Your task to perform on an android device: Open Yahoo.com Image 0: 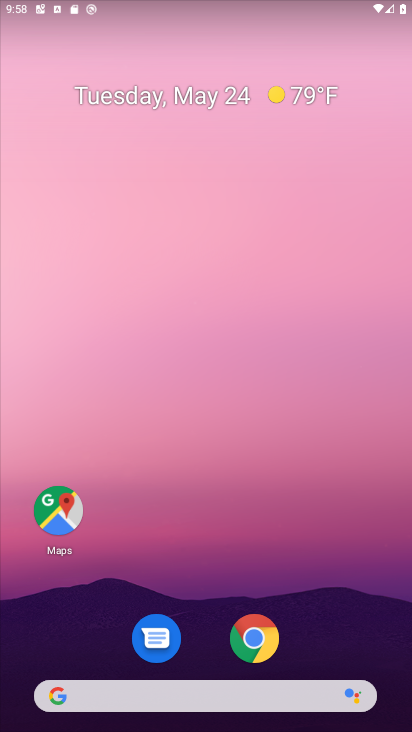
Step 0: click (116, 692)
Your task to perform on an android device: Open Yahoo.com Image 1: 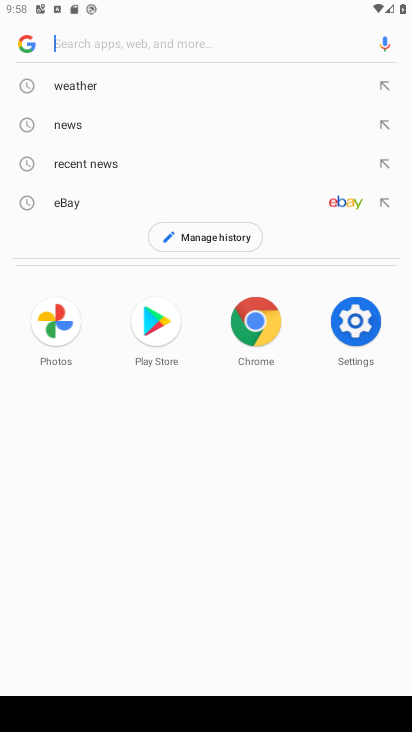
Step 1: type "yahoo.com"
Your task to perform on an android device: Open Yahoo.com Image 2: 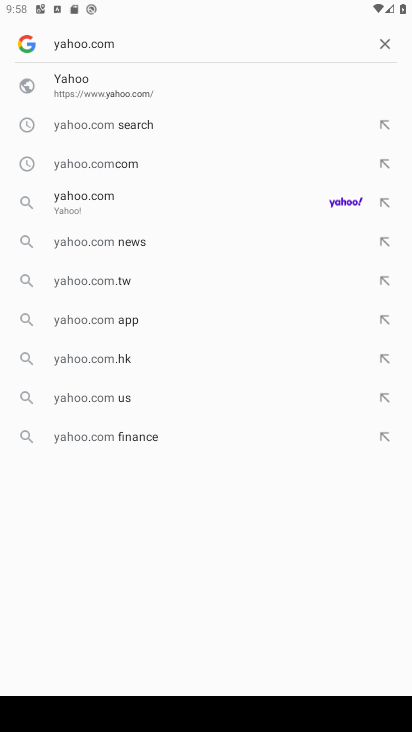
Step 2: click (194, 82)
Your task to perform on an android device: Open Yahoo.com Image 3: 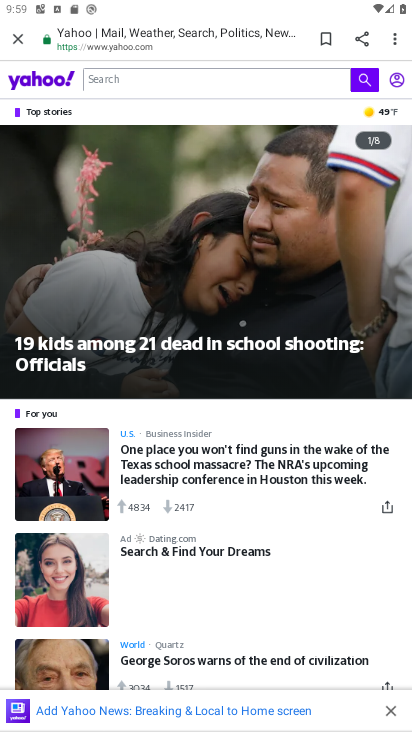
Step 3: task complete